Your task to perform on an android device: Show me recent news Image 0: 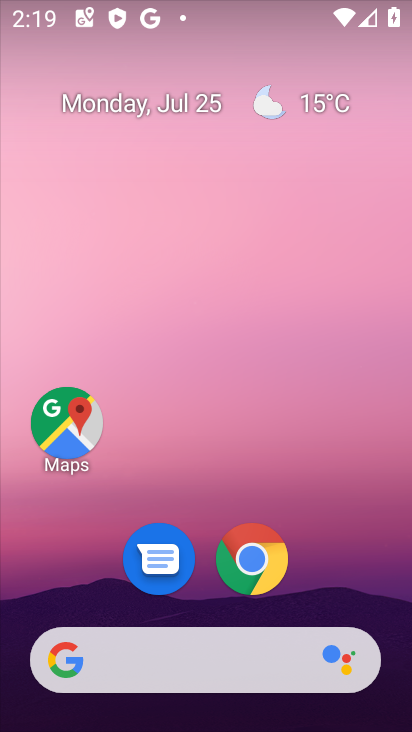
Step 0: click (161, 659)
Your task to perform on an android device: Show me recent news Image 1: 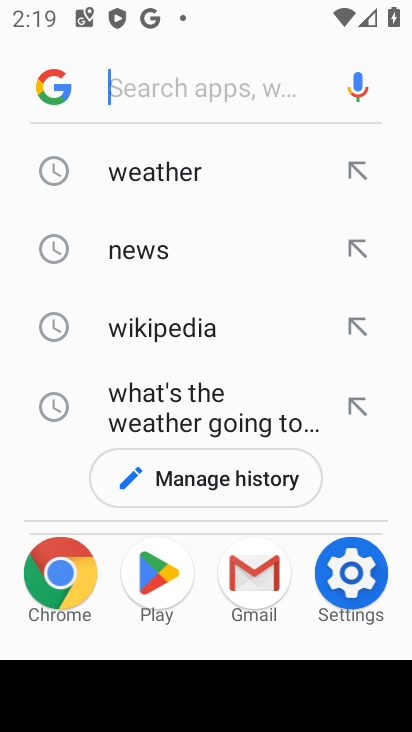
Step 1: click (160, 85)
Your task to perform on an android device: Show me recent news Image 2: 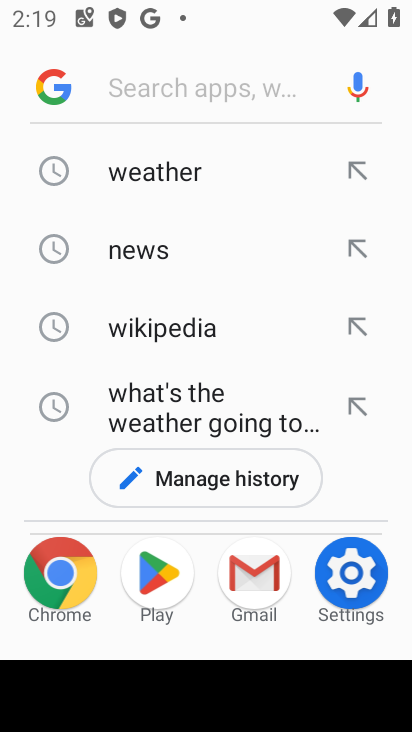
Step 2: type "recent news"
Your task to perform on an android device: Show me recent news Image 3: 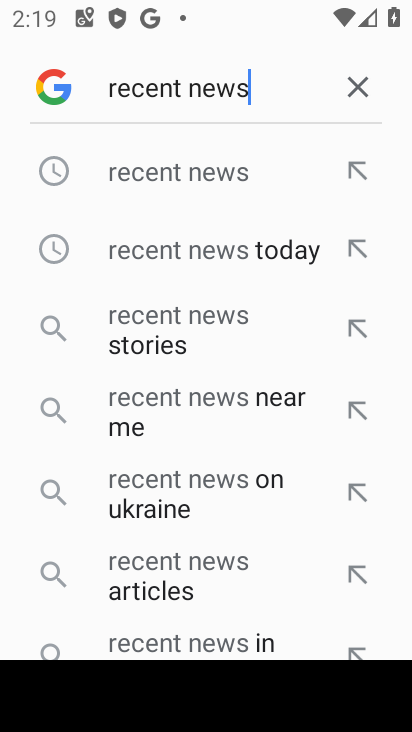
Step 3: click (225, 176)
Your task to perform on an android device: Show me recent news Image 4: 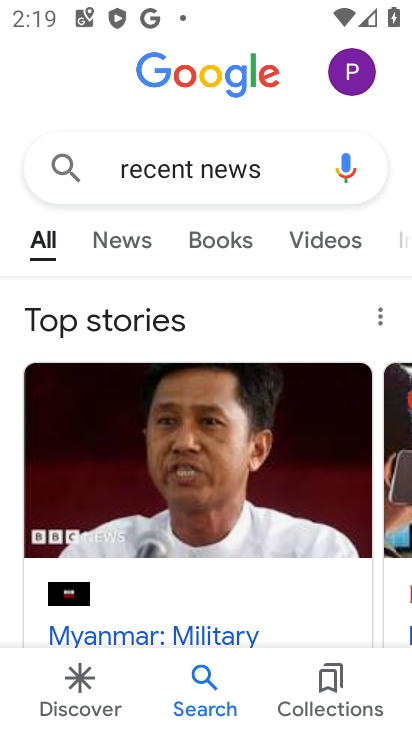
Step 4: task complete